Your task to perform on an android device: Open calendar and show me the first week of next month Image 0: 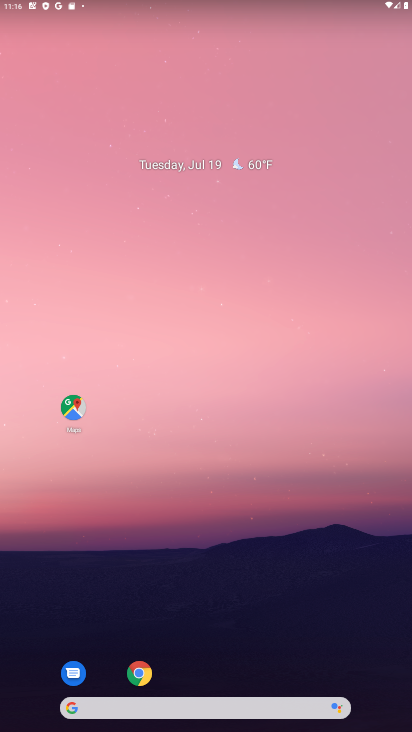
Step 0: drag from (384, 690) to (338, 205)
Your task to perform on an android device: Open calendar and show me the first week of next month Image 1: 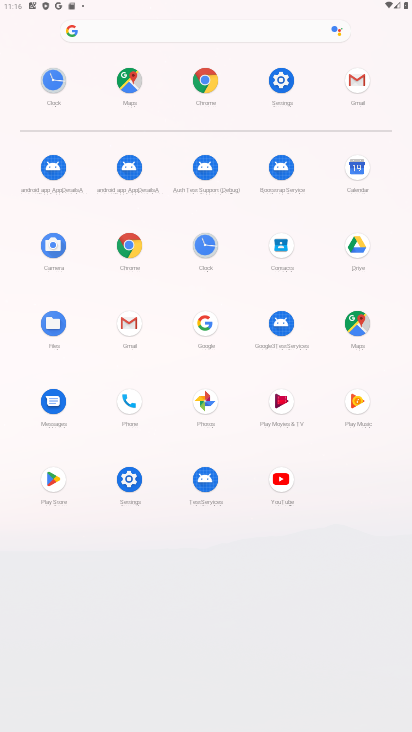
Step 1: click (356, 166)
Your task to perform on an android device: Open calendar and show me the first week of next month Image 2: 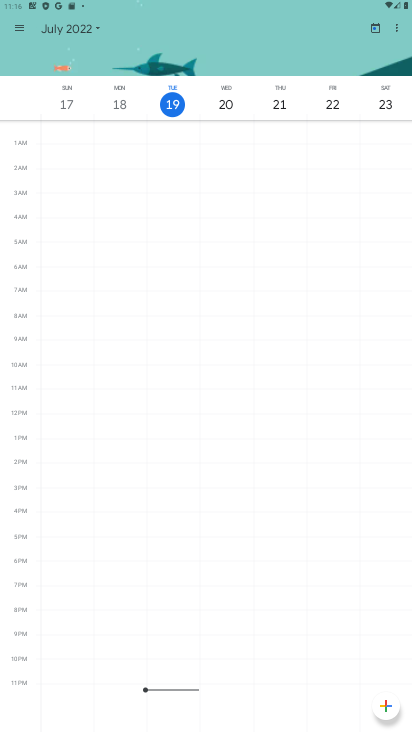
Step 2: click (96, 26)
Your task to perform on an android device: Open calendar and show me the first week of next month Image 3: 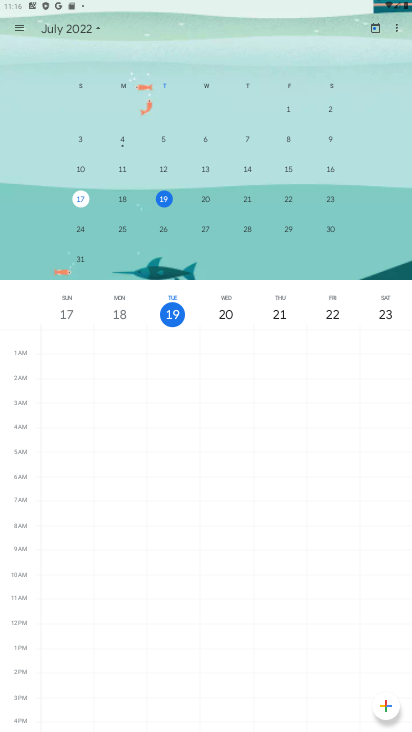
Step 3: drag from (334, 198) to (20, 170)
Your task to perform on an android device: Open calendar and show me the first week of next month Image 4: 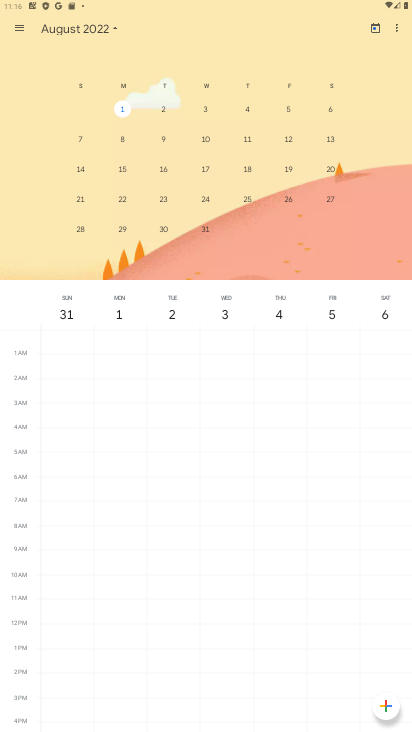
Step 4: click (77, 139)
Your task to perform on an android device: Open calendar and show me the first week of next month Image 5: 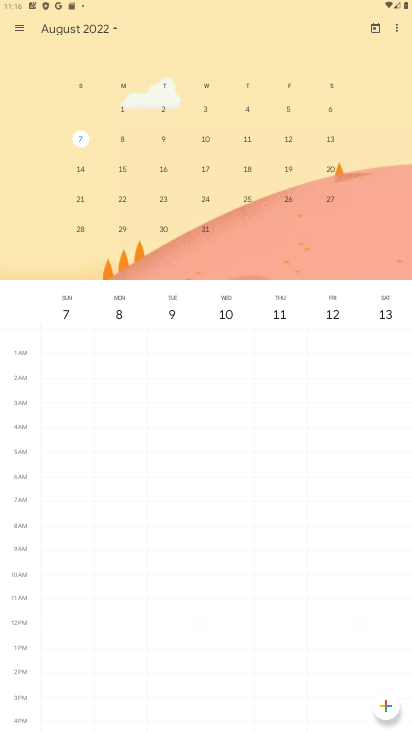
Step 5: drag from (171, 405) to (164, 153)
Your task to perform on an android device: Open calendar and show me the first week of next month Image 6: 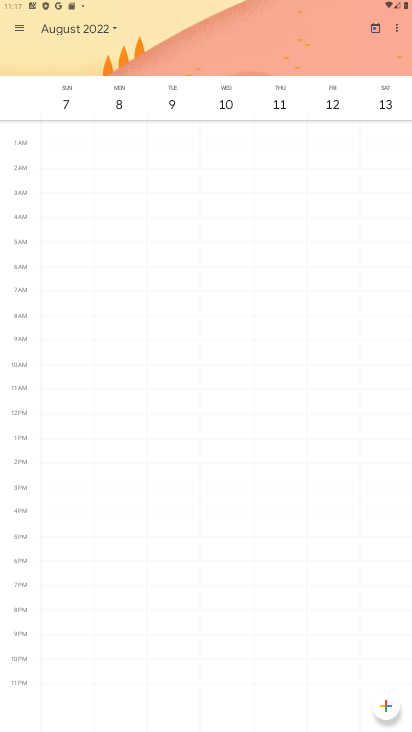
Step 6: click (164, 154)
Your task to perform on an android device: Open calendar and show me the first week of next month Image 7: 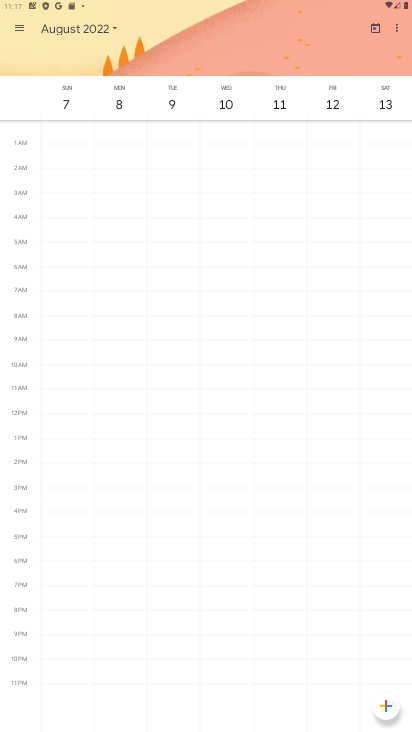
Step 7: task complete